Your task to perform on an android device: Search for vegetarian restaurants on Maps Image 0: 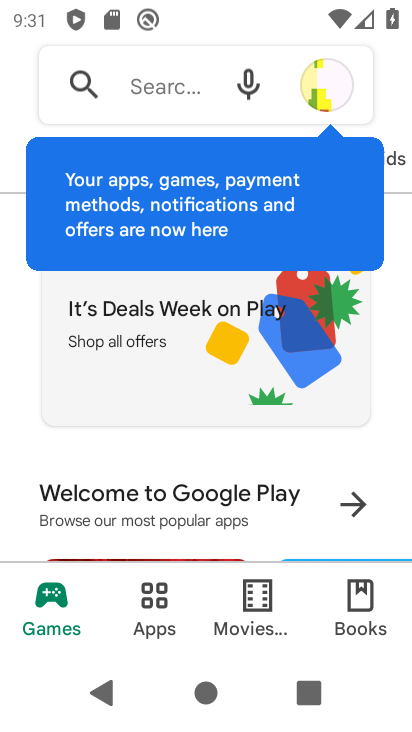
Step 0: press home button
Your task to perform on an android device: Search for vegetarian restaurants on Maps Image 1: 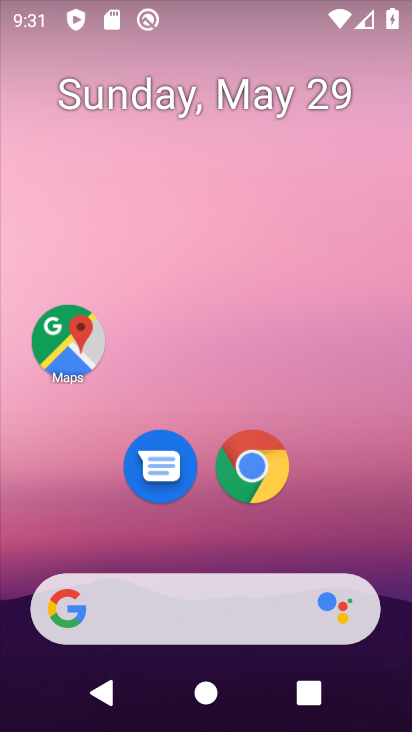
Step 1: click (70, 347)
Your task to perform on an android device: Search for vegetarian restaurants on Maps Image 2: 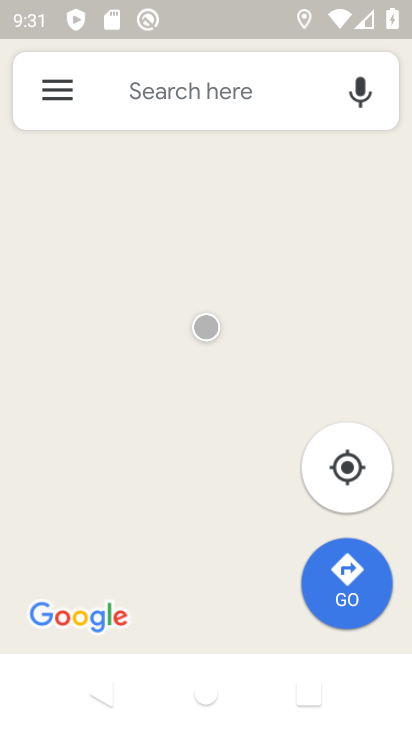
Step 2: click (179, 94)
Your task to perform on an android device: Search for vegetarian restaurants on Maps Image 3: 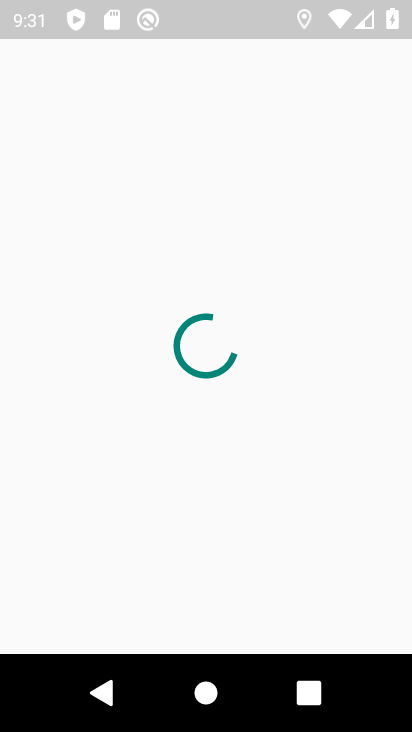
Step 3: click (192, 96)
Your task to perform on an android device: Search for vegetarian restaurants on Maps Image 4: 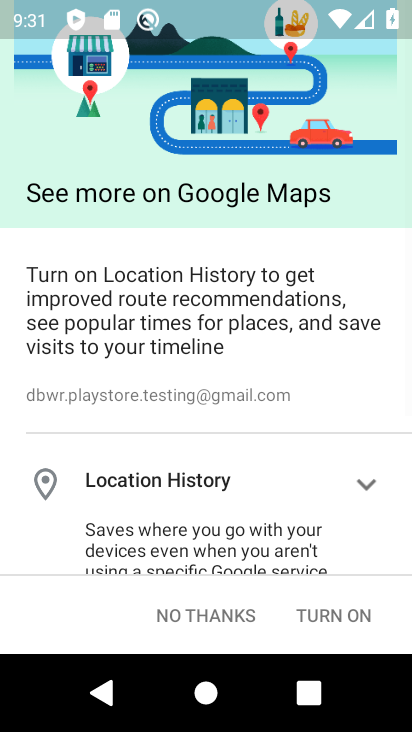
Step 4: click (315, 602)
Your task to perform on an android device: Search for vegetarian restaurants on Maps Image 5: 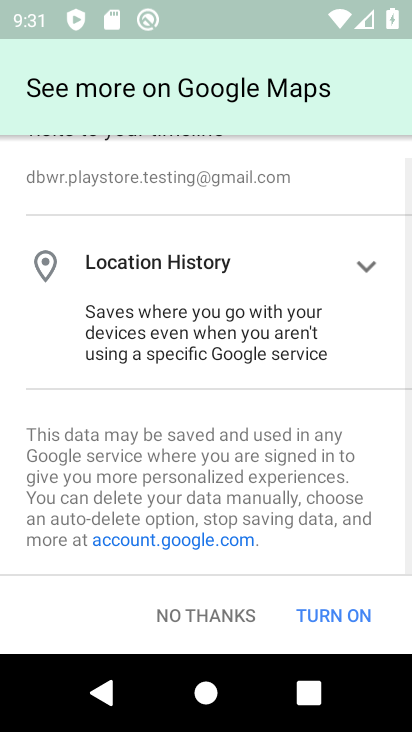
Step 5: click (315, 602)
Your task to perform on an android device: Search for vegetarian restaurants on Maps Image 6: 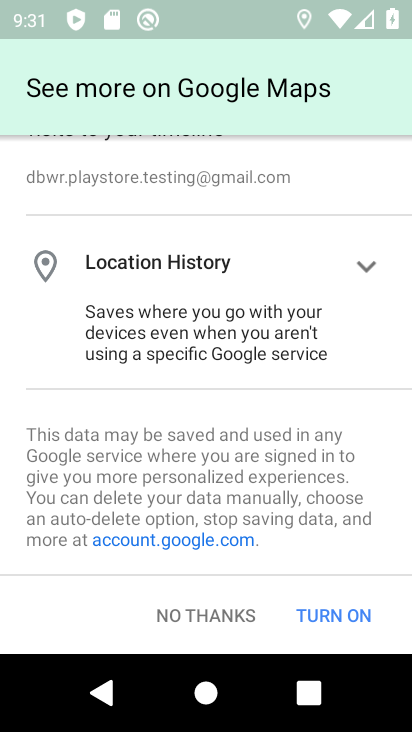
Step 6: click (315, 602)
Your task to perform on an android device: Search for vegetarian restaurants on Maps Image 7: 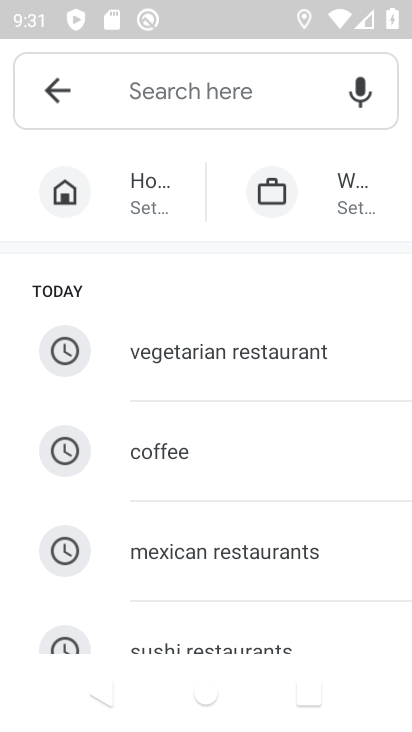
Step 7: click (181, 84)
Your task to perform on an android device: Search for vegetarian restaurants on Maps Image 8: 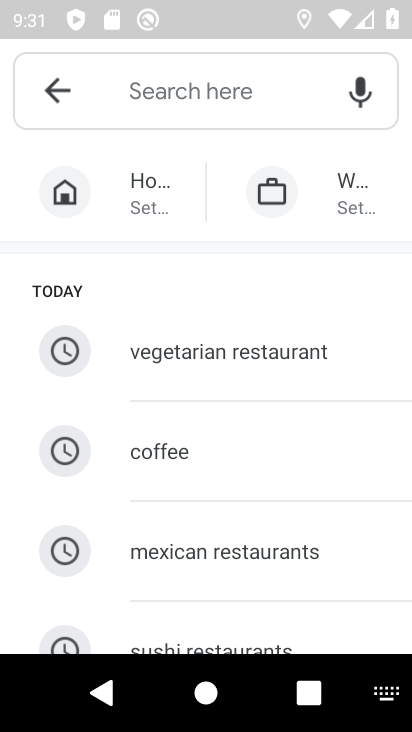
Step 8: click (226, 355)
Your task to perform on an android device: Search for vegetarian restaurants on Maps Image 9: 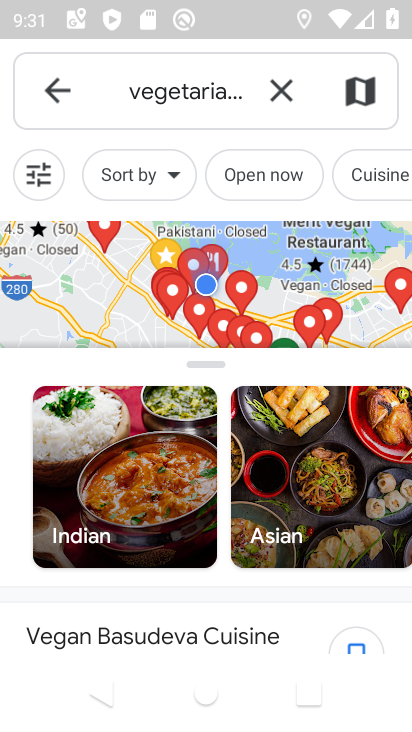
Step 9: task complete